Your task to perform on an android device: snooze an email in the gmail app Image 0: 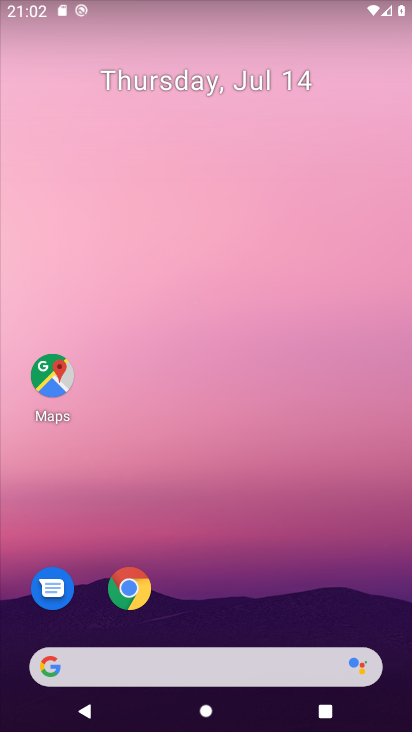
Step 0: drag from (353, 606) to (364, 188)
Your task to perform on an android device: snooze an email in the gmail app Image 1: 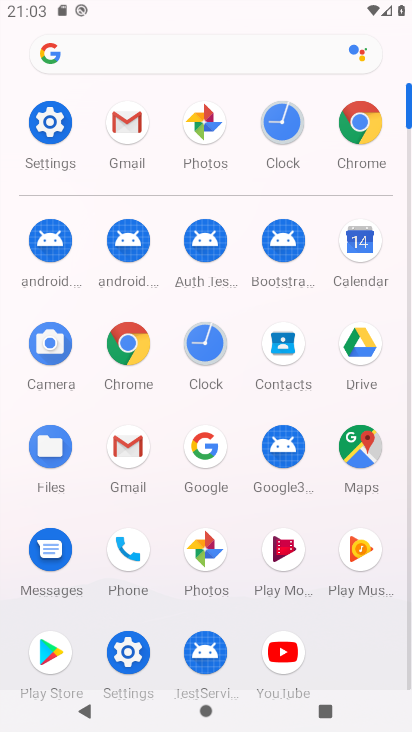
Step 1: click (138, 439)
Your task to perform on an android device: snooze an email in the gmail app Image 2: 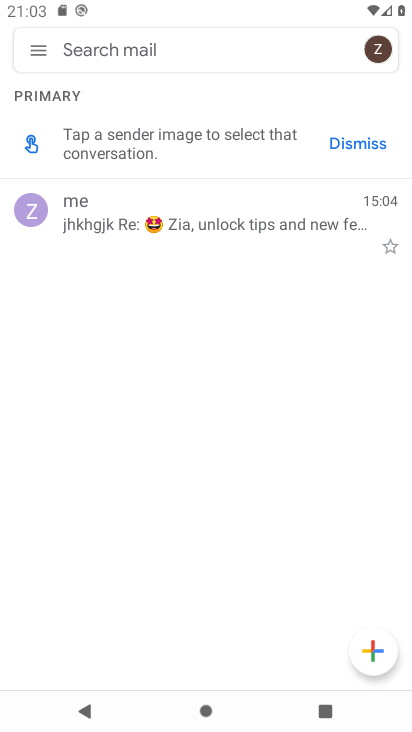
Step 2: click (37, 49)
Your task to perform on an android device: snooze an email in the gmail app Image 3: 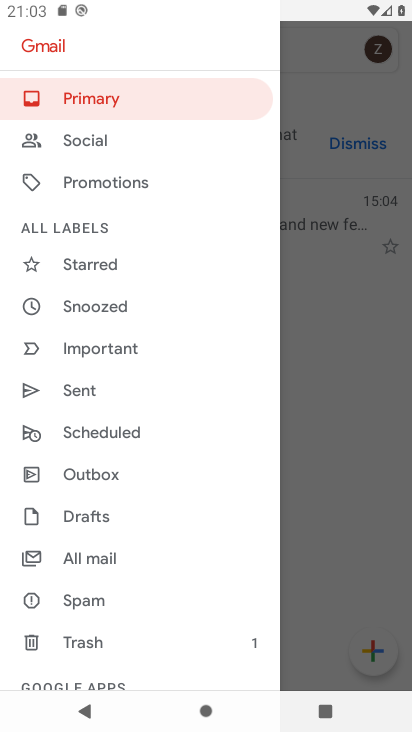
Step 3: drag from (182, 398) to (195, 320)
Your task to perform on an android device: snooze an email in the gmail app Image 4: 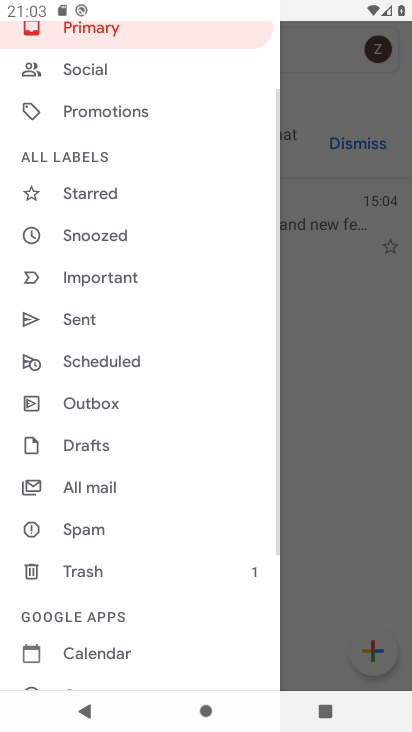
Step 4: drag from (208, 405) to (209, 329)
Your task to perform on an android device: snooze an email in the gmail app Image 5: 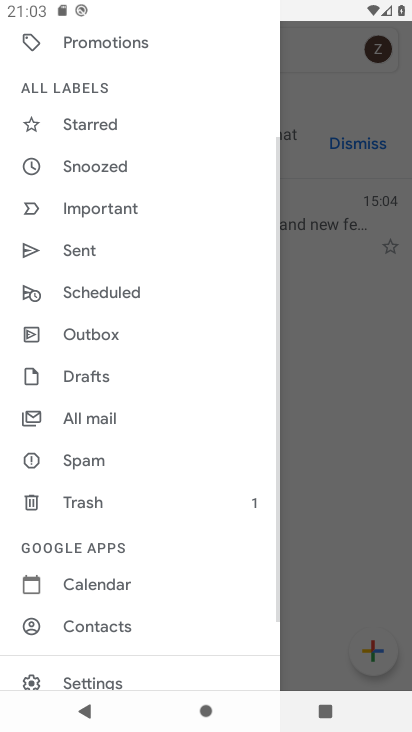
Step 5: drag from (214, 409) to (214, 331)
Your task to perform on an android device: snooze an email in the gmail app Image 6: 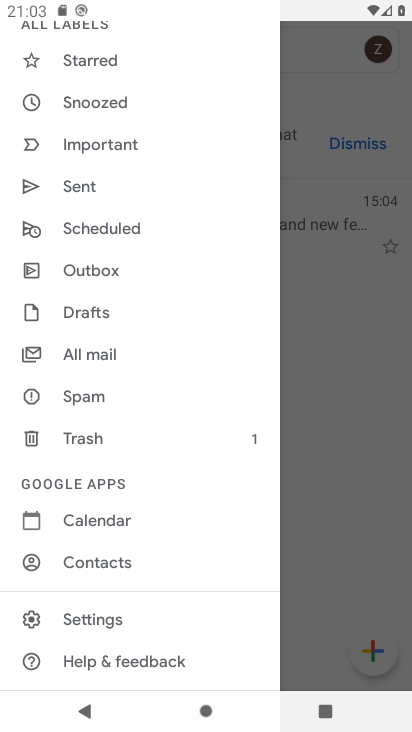
Step 6: drag from (211, 412) to (211, 327)
Your task to perform on an android device: snooze an email in the gmail app Image 7: 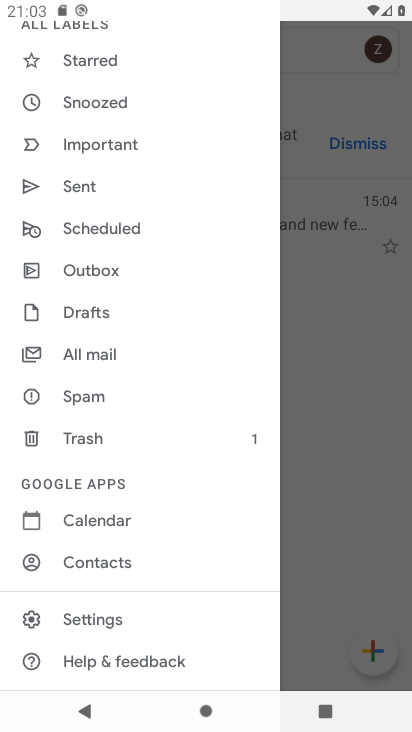
Step 7: drag from (211, 234) to (208, 303)
Your task to perform on an android device: snooze an email in the gmail app Image 8: 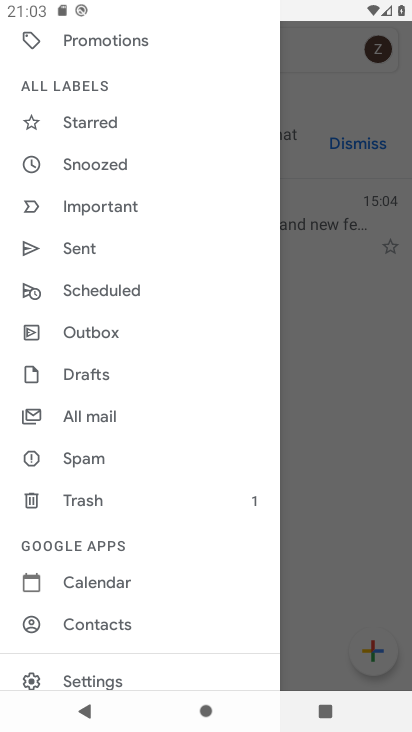
Step 8: drag from (204, 215) to (204, 298)
Your task to perform on an android device: snooze an email in the gmail app Image 9: 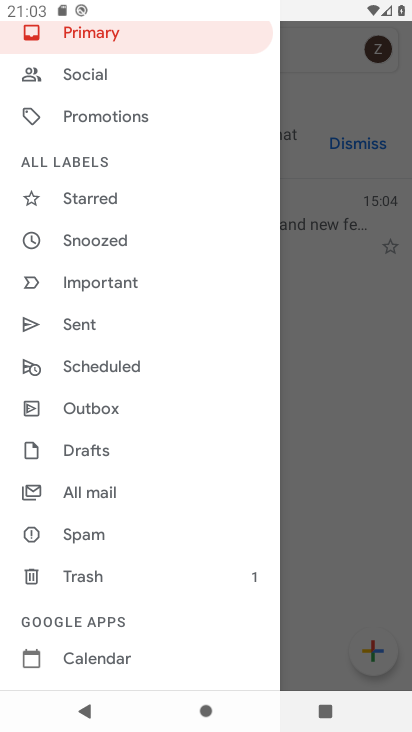
Step 9: click (192, 276)
Your task to perform on an android device: snooze an email in the gmail app Image 10: 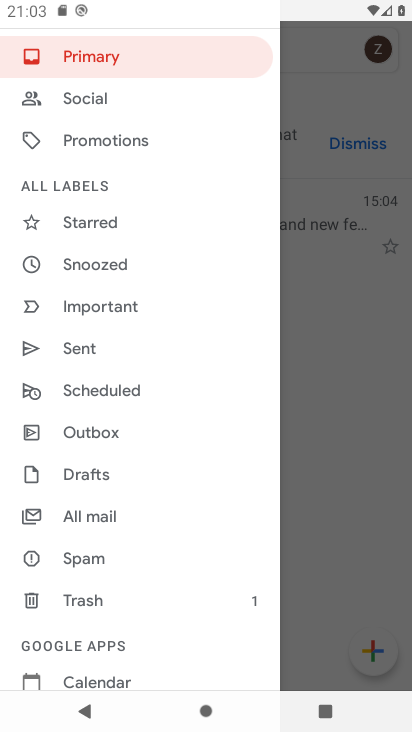
Step 10: drag from (214, 217) to (220, 372)
Your task to perform on an android device: snooze an email in the gmail app Image 11: 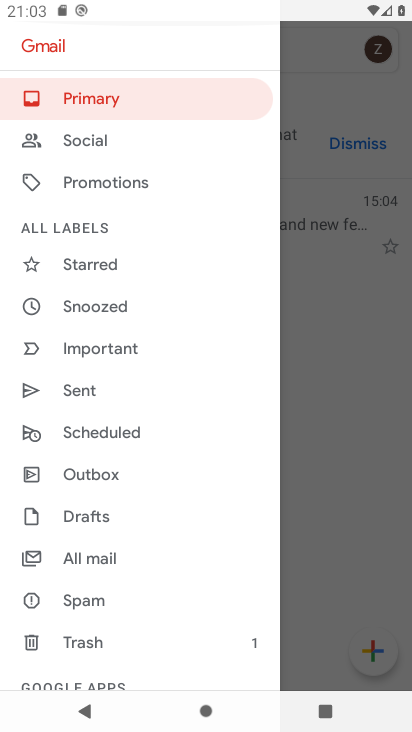
Step 11: drag from (220, 398) to (223, 349)
Your task to perform on an android device: snooze an email in the gmail app Image 12: 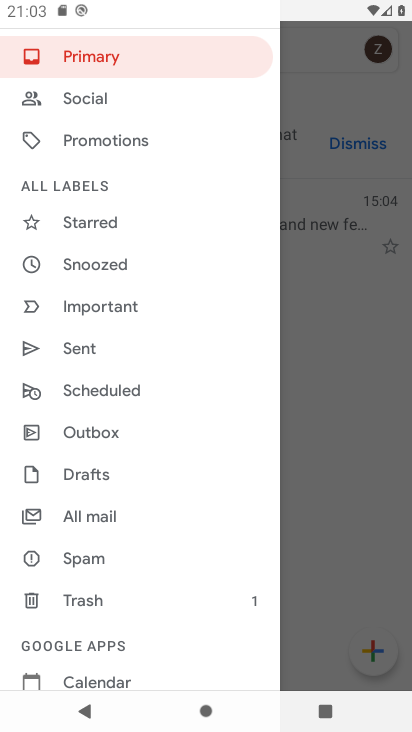
Step 12: drag from (223, 393) to (222, 333)
Your task to perform on an android device: snooze an email in the gmail app Image 13: 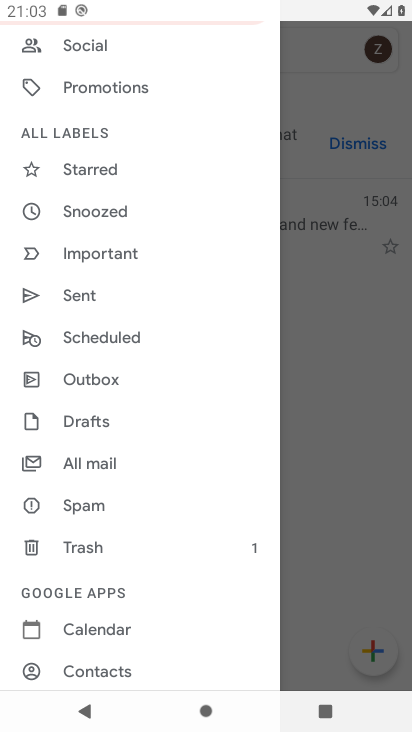
Step 13: drag from (217, 388) to (225, 265)
Your task to perform on an android device: snooze an email in the gmail app Image 14: 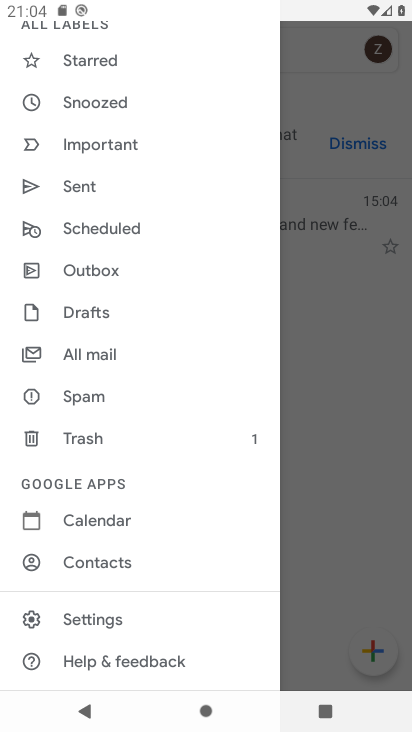
Step 14: drag from (224, 336) to (225, 267)
Your task to perform on an android device: snooze an email in the gmail app Image 15: 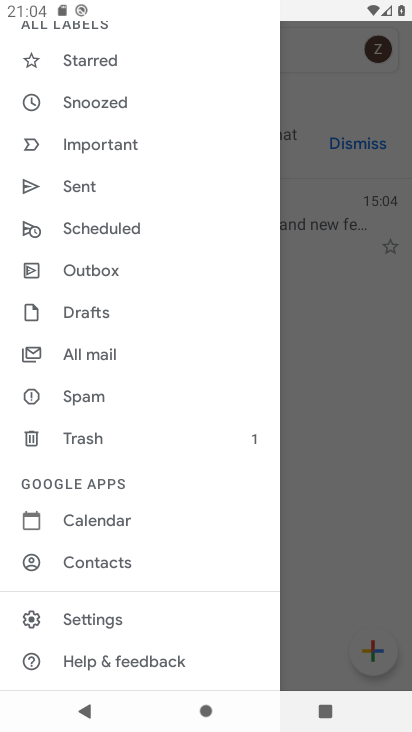
Step 15: click (158, 108)
Your task to perform on an android device: snooze an email in the gmail app Image 16: 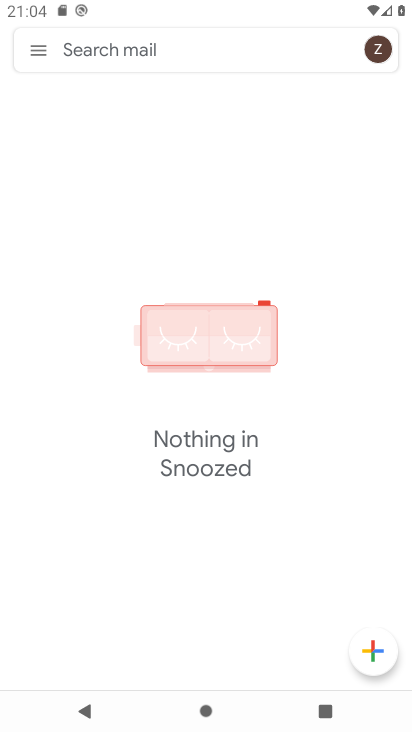
Step 16: task complete